Your task to perform on an android device: Show me the alarms in the clock app Image 0: 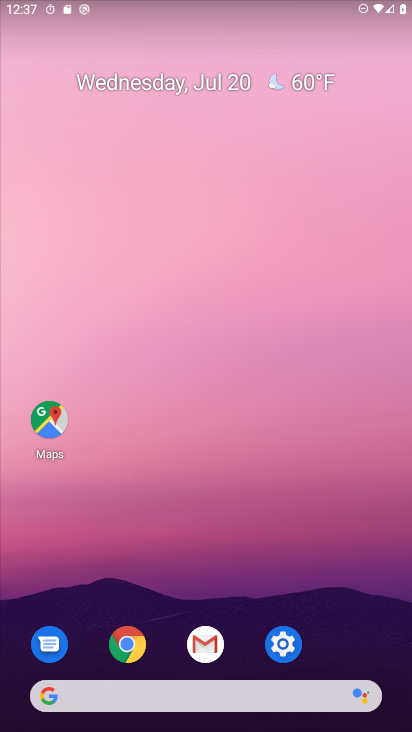
Step 0: press home button
Your task to perform on an android device: Show me the alarms in the clock app Image 1: 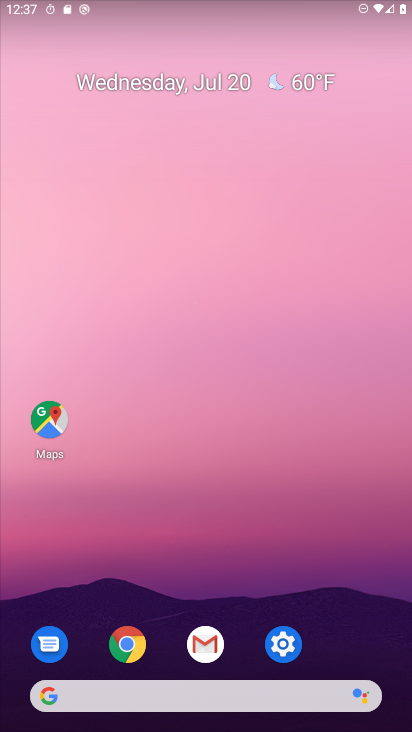
Step 1: drag from (204, 704) to (275, 147)
Your task to perform on an android device: Show me the alarms in the clock app Image 2: 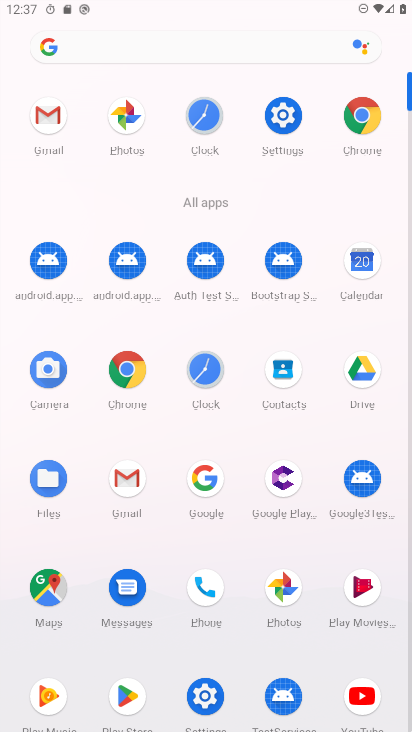
Step 2: click (209, 379)
Your task to perform on an android device: Show me the alarms in the clock app Image 3: 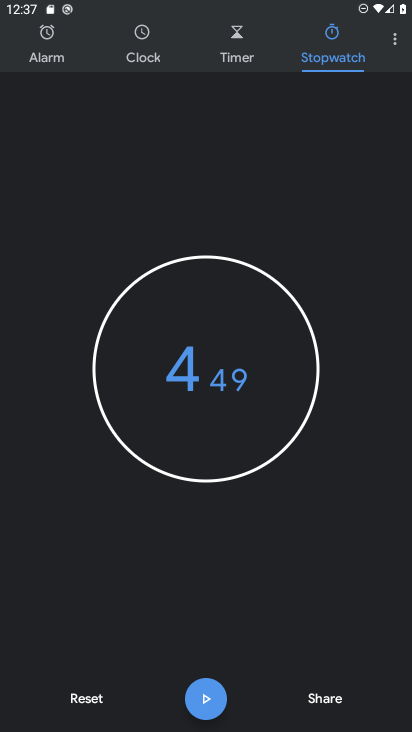
Step 3: click (392, 40)
Your task to perform on an android device: Show me the alarms in the clock app Image 4: 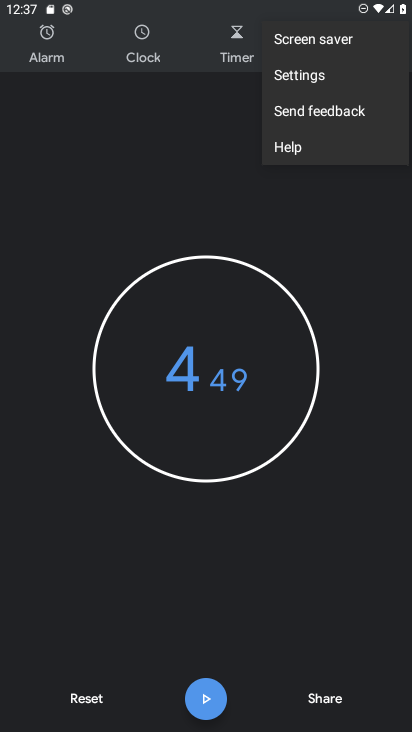
Step 4: click (46, 53)
Your task to perform on an android device: Show me the alarms in the clock app Image 5: 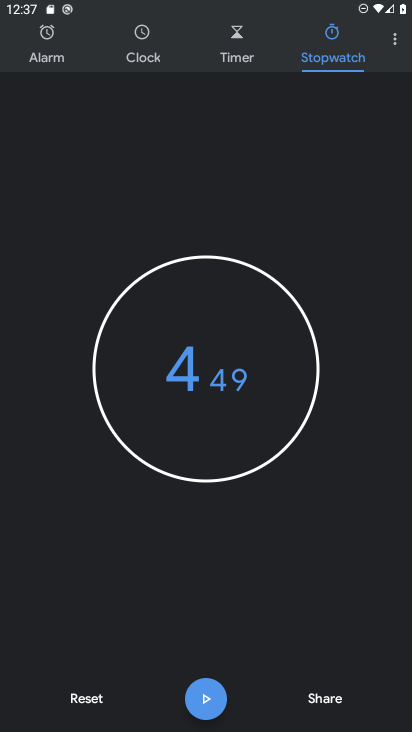
Step 5: click (46, 53)
Your task to perform on an android device: Show me the alarms in the clock app Image 6: 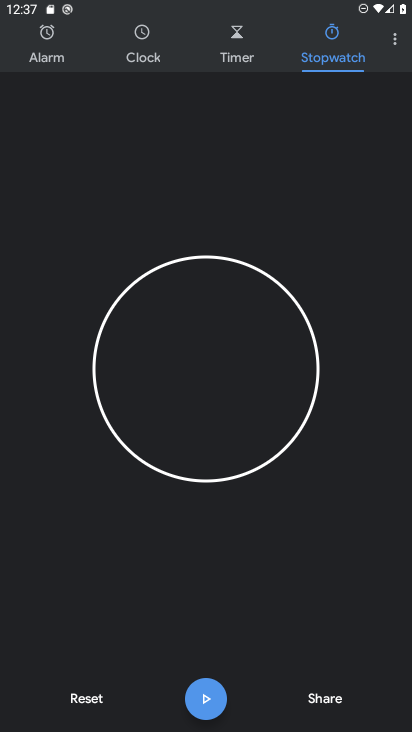
Step 6: click (57, 56)
Your task to perform on an android device: Show me the alarms in the clock app Image 7: 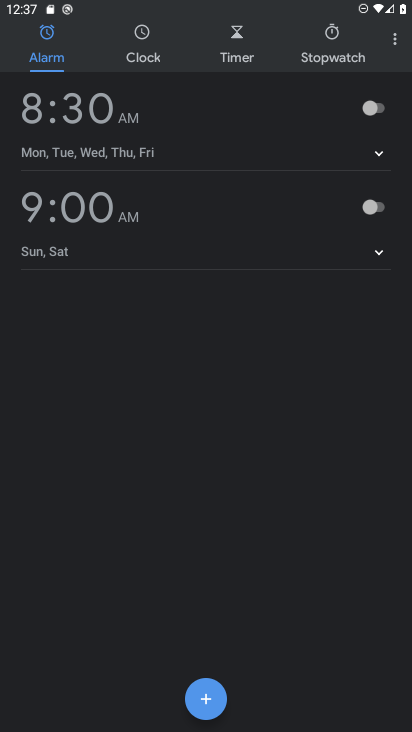
Step 7: task complete